Your task to perform on an android device: Open Yahoo.com Image 0: 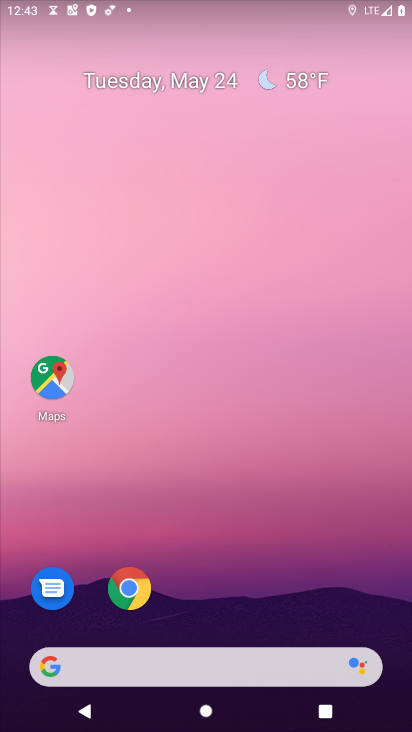
Step 0: click (125, 599)
Your task to perform on an android device: Open Yahoo.com Image 1: 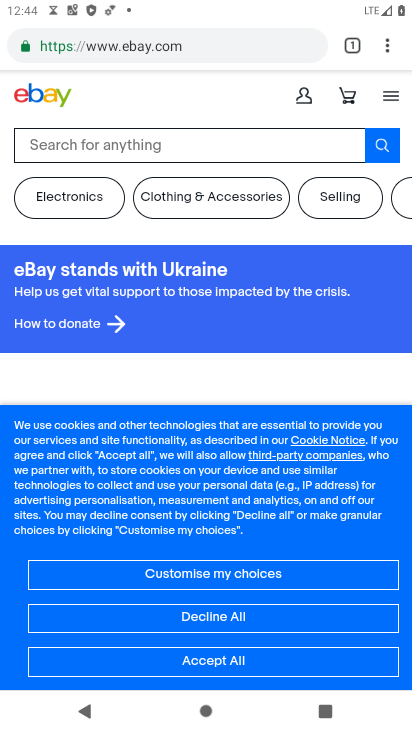
Step 1: click (123, 47)
Your task to perform on an android device: Open Yahoo.com Image 2: 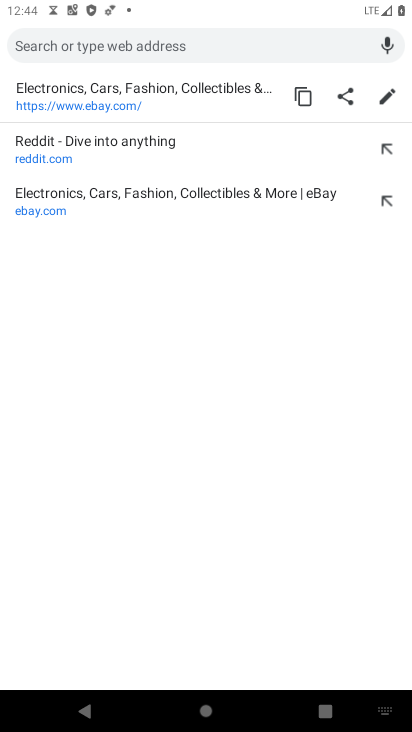
Step 2: type "www.yahoo.com"
Your task to perform on an android device: Open Yahoo.com Image 3: 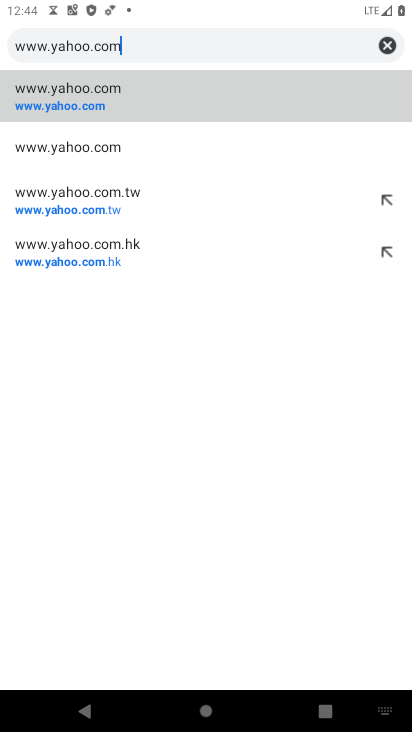
Step 3: click (72, 101)
Your task to perform on an android device: Open Yahoo.com Image 4: 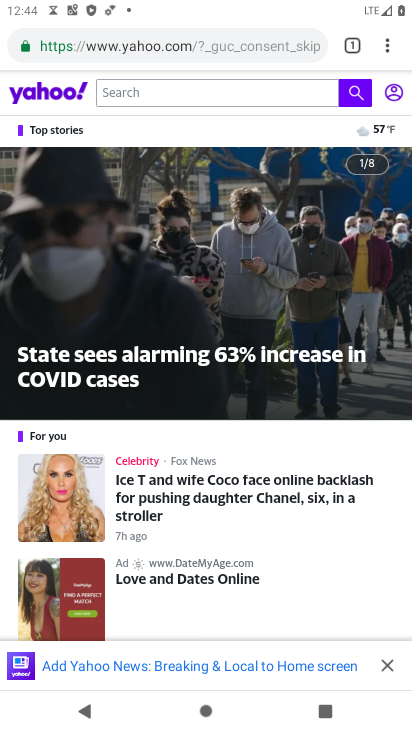
Step 4: task complete